Your task to perform on an android device: delete the emails in spam in the gmail app Image 0: 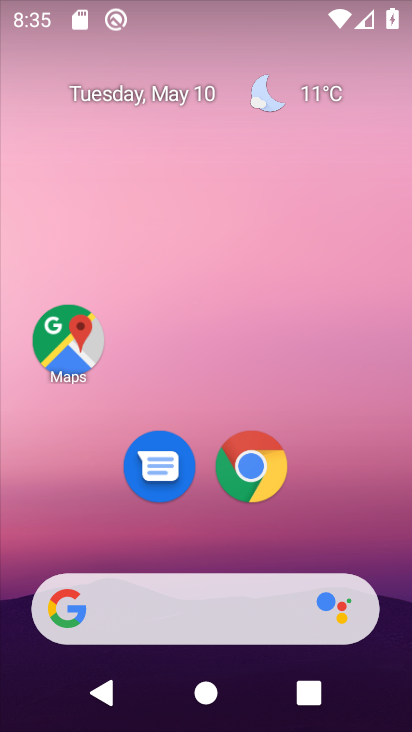
Step 0: drag from (209, 549) to (317, 0)
Your task to perform on an android device: delete the emails in spam in the gmail app Image 1: 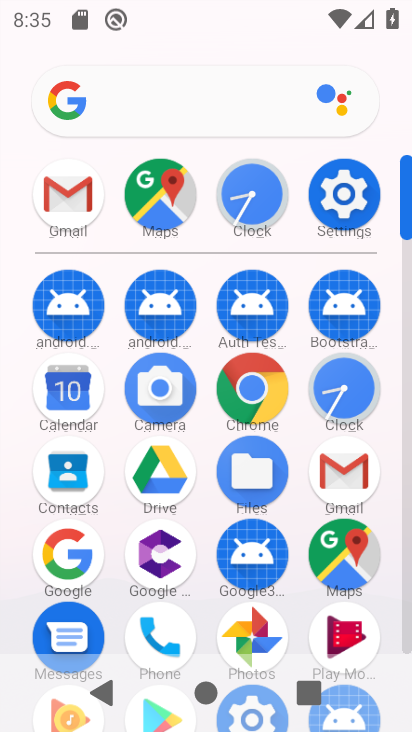
Step 1: click (335, 463)
Your task to perform on an android device: delete the emails in spam in the gmail app Image 2: 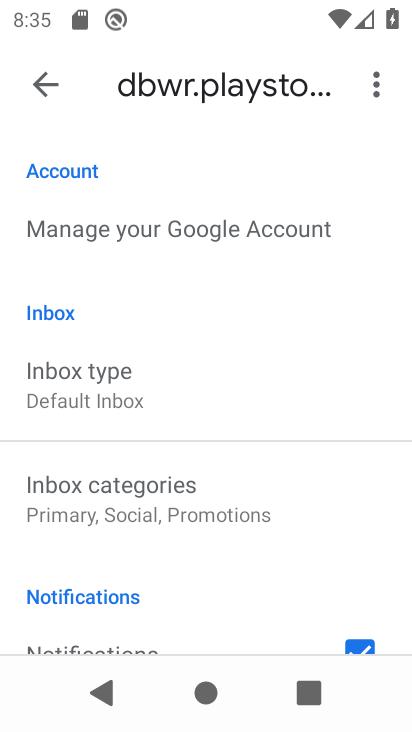
Step 2: click (42, 82)
Your task to perform on an android device: delete the emails in spam in the gmail app Image 3: 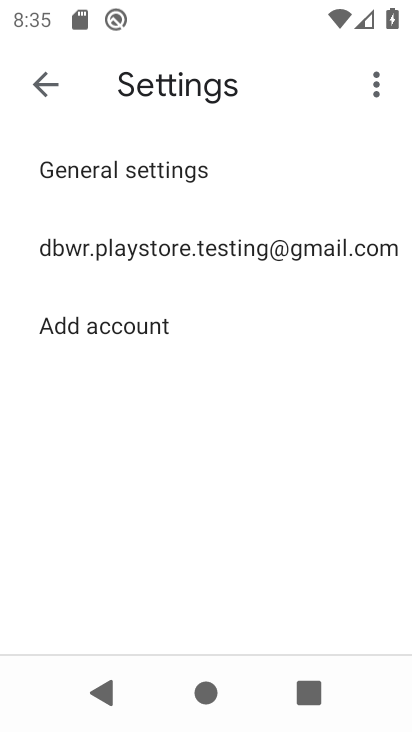
Step 3: click (43, 83)
Your task to perform on an android device: delete the emails in spam in the gmail app Image 4: 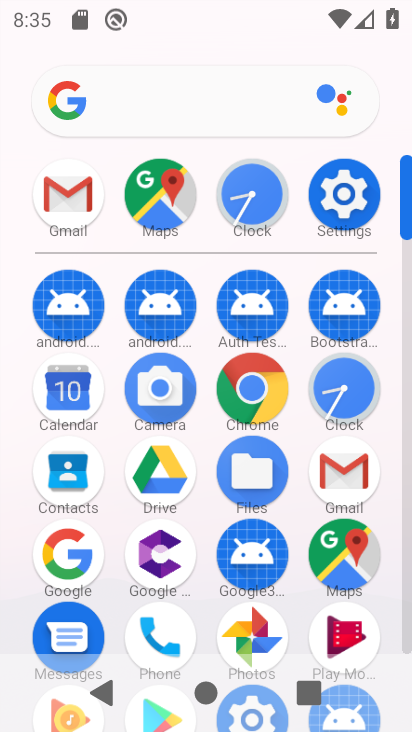
Step 4: click (342, 488)
Your task to perform on an android device: delete the emails in spam in the gmail app Image 5: 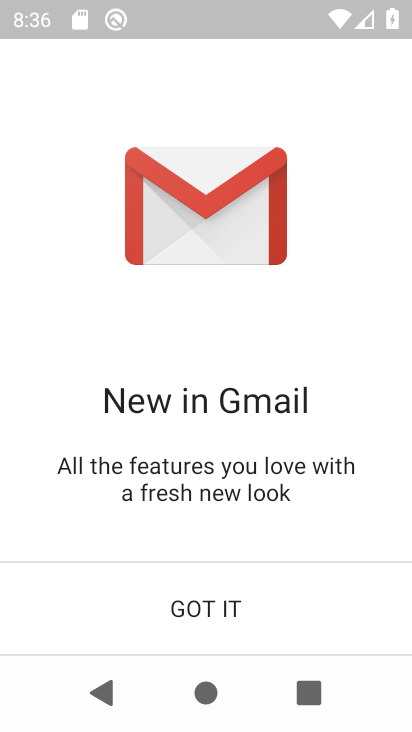
Step 5: click (207, 607)
Your task to perform on an android device: delete the emails in spam in the gmail app Image 6: 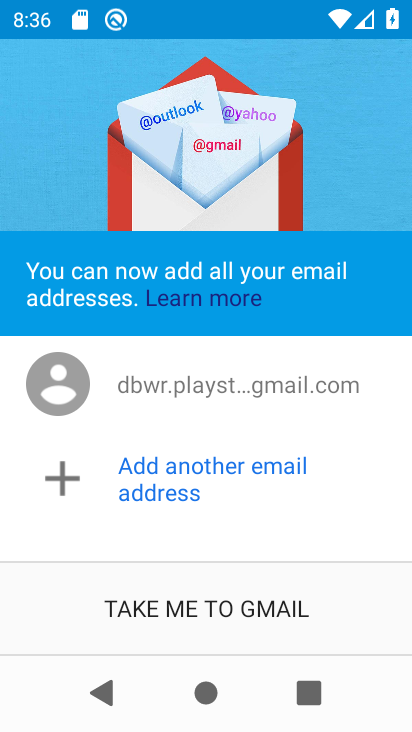
Step 6: click (203, 607)
Your task to perform on an android device: delete the emails in spam in the gmail app Image 7: 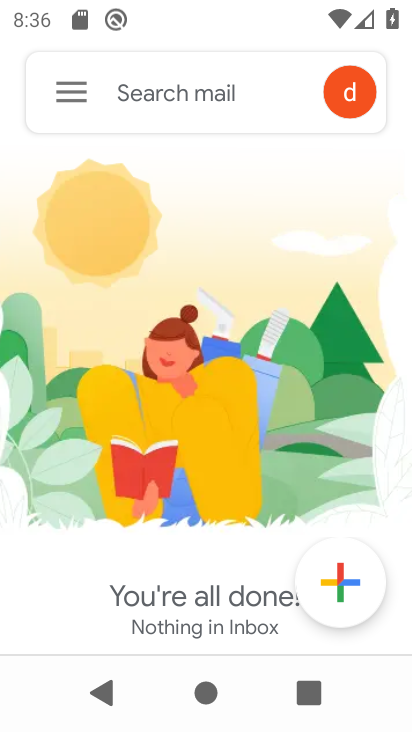
Step 7: click (73, 87)
Your task to perform on an android device: delete the emails in spam in the gmail app Image 8: 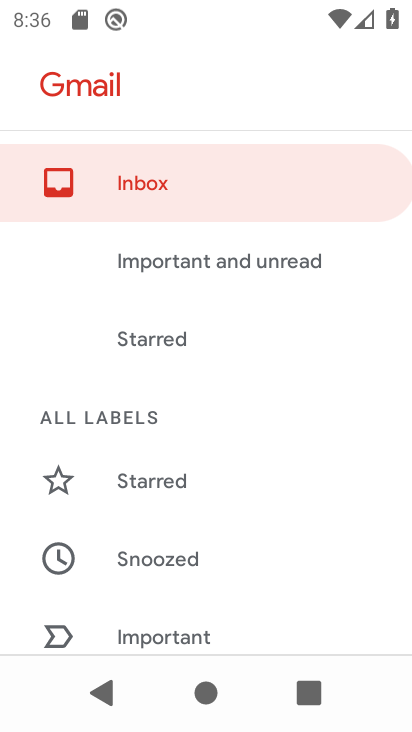
Step 8: drag from (108, 591) to (167, 186)
Your task to perform on an android device: delete the emails in spam in the gmail app Image 9: 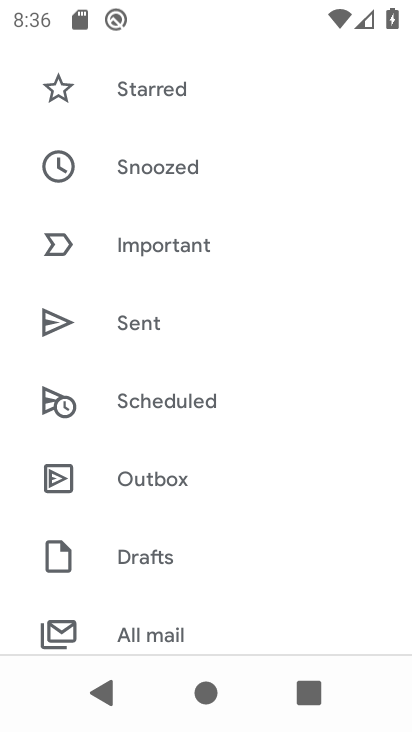
Step 9: drag from (166, 412) to (169, 108)
Your task to perform on an android device: delete the emails in spam in the gmail app Image 10: 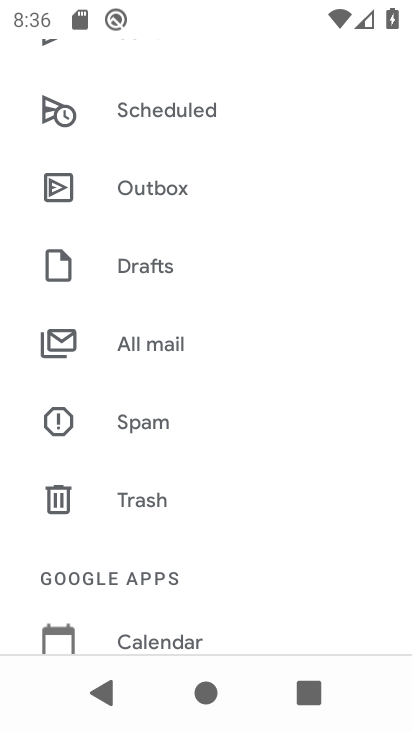
Step 10: click (133, 542)
Your task to perform on an android device: delete the emails in spam in the gmail app Image 11: 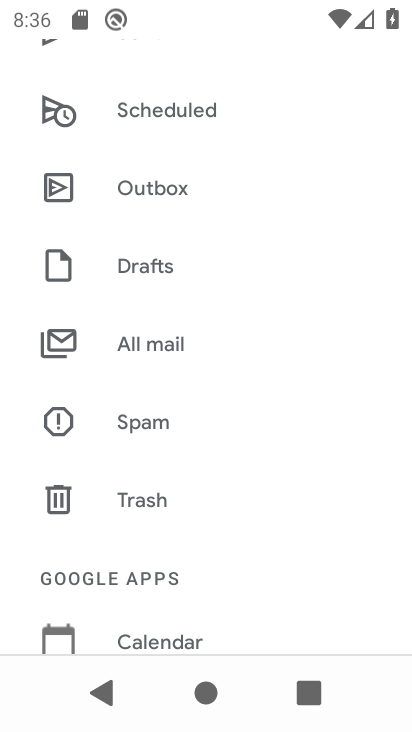
Step 11: click (122, 439)
Your task to perform on an android device: delete the emails in spam in the gmail app Image 12: 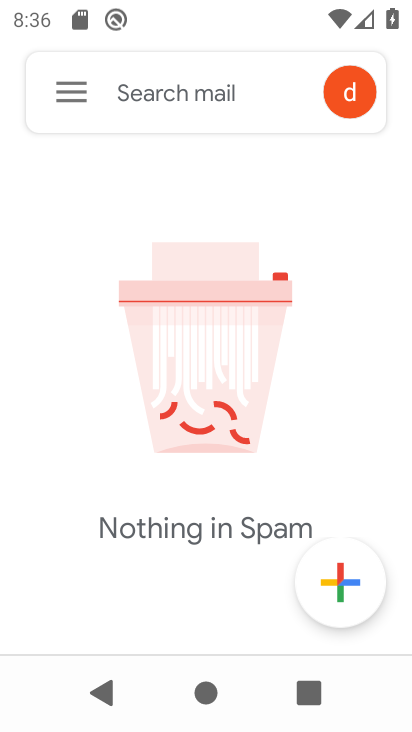
Step 12: task complete